Your task to perform on an android device: turn pop-ups off in chrome Image 0: 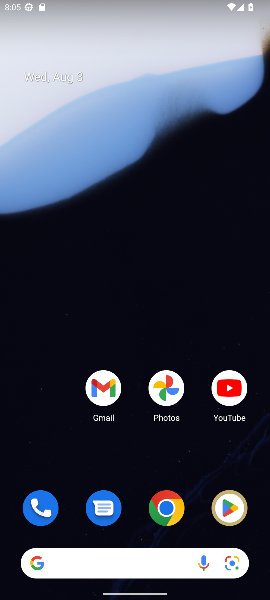
Step 0: drag from (116, 530) to (226, 162)
Your task to perform on an android device: turn pop-ups off in chrome Image 1: 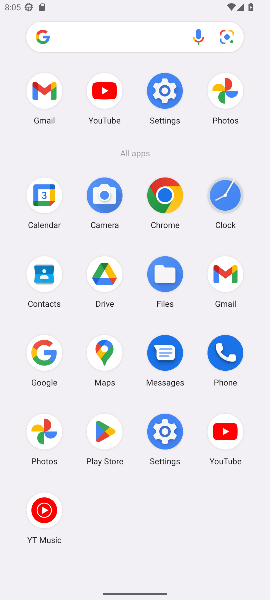
Step 1: click (161, 193)
Your task to perform on an android device: turn pop-ups off in chrome Image 2: 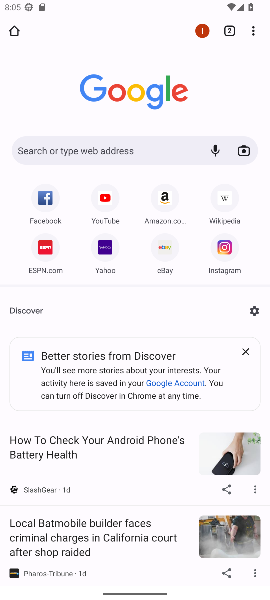
Step 2: click (253, 28)
Your task to perform on an android device: turn pop-ups off in chrome Image 3: 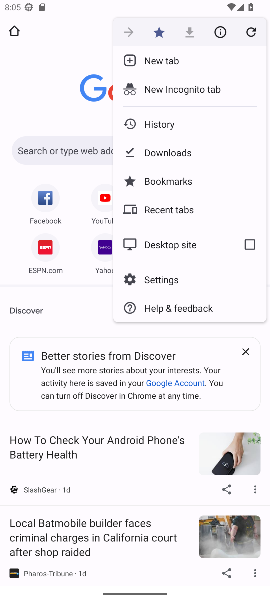
Step 3: click (173, 275)
Your task to perform on an android device: turn pop-ups off in chrome Image 4: 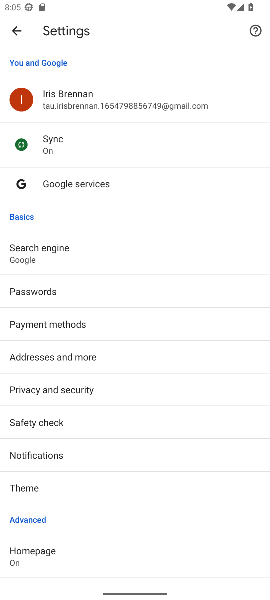
Step 4: drag from (77, 512) to (53, 105)
Your task to perform on an android device: turn pop-ups off in chrome Image 5: 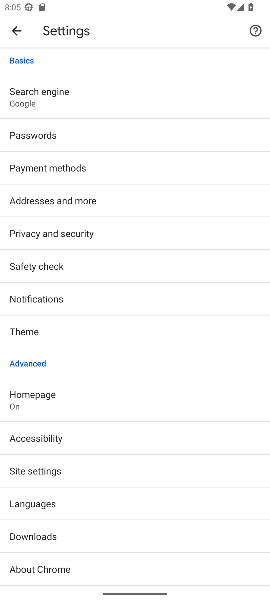
Step 5: click (34, 477)
Your task to perform on an android device: turn pop-ups off in chrome Image 6: 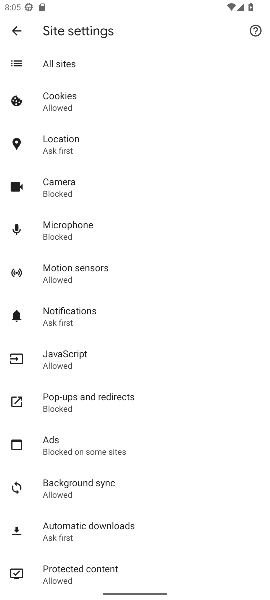
Step 6: click (70, 422)
Your task to perform on an android device: turn pop-ups off in chrome Image 7: 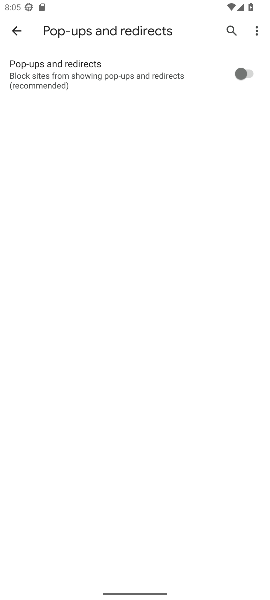
Step 7: task complete